Your task to perform on an android device: Clear all items from cart on costco.com. Image 0: 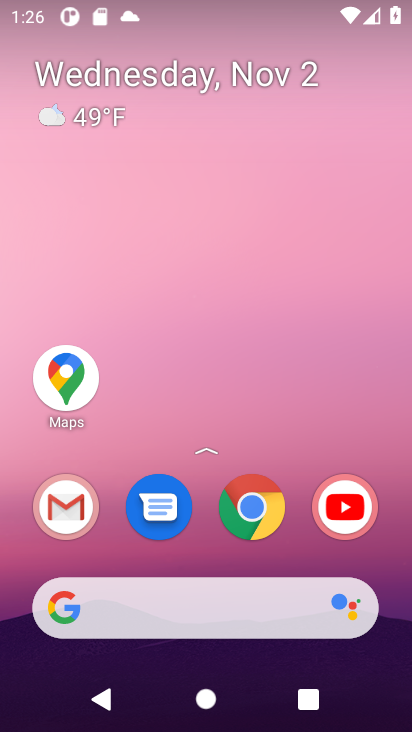
Step 0: click (176, 598)
Your task to perform on an android device: Clear all items from cart on costco.com. Image 1: 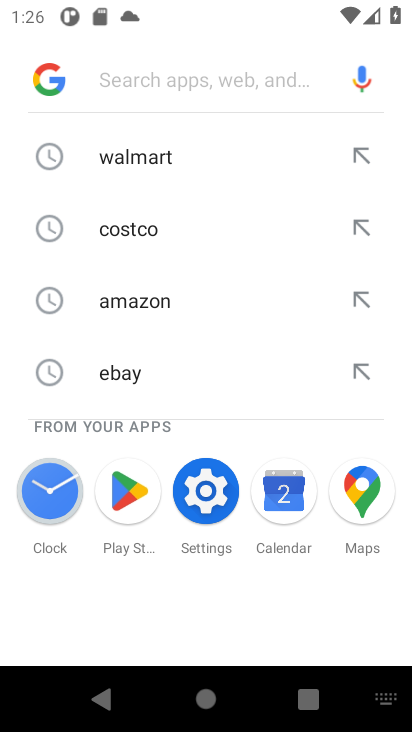
Step 1: click (126, 232)
Your task to perform on an android device: Clear all items from cart on costco.com. Image 2: 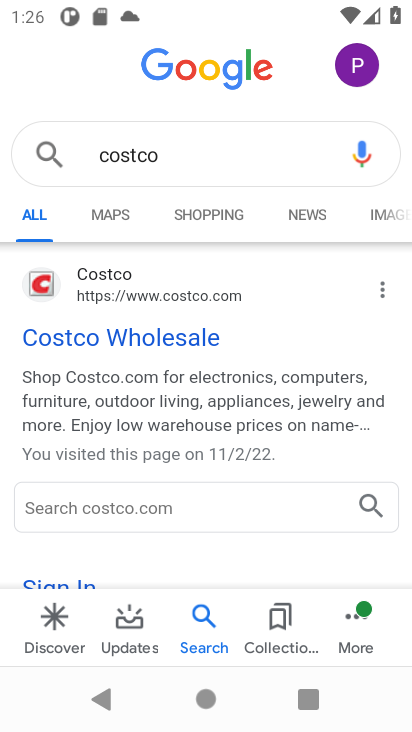
Step 2: click (156, 329)
Your task to perform on an android device: Clear all items from cart on costco.com. Image 3: 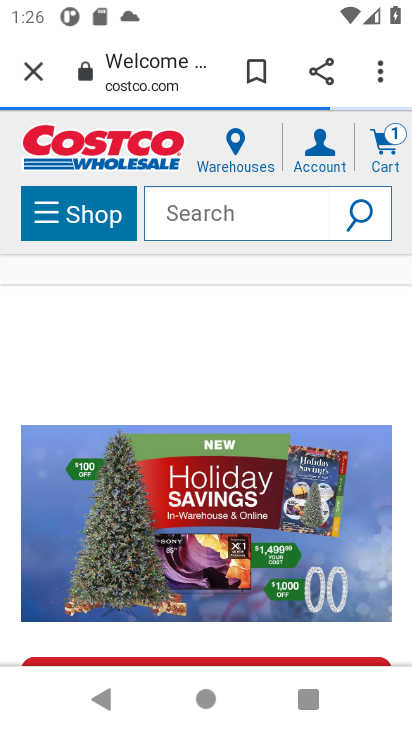
Step 3: click (222, 225)
Your task to perform on an android device: Clear all items from cart on costco.com. Image 4: 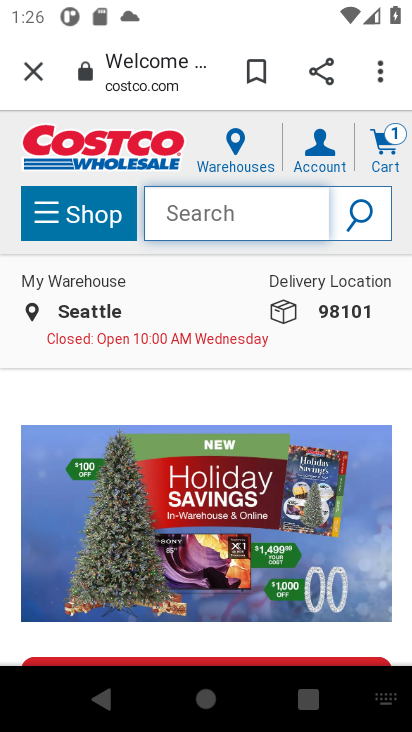
Step 4: click (365, 141)
Your task to perform on an android device: Clear all items from cart on costco.com. Image 5: 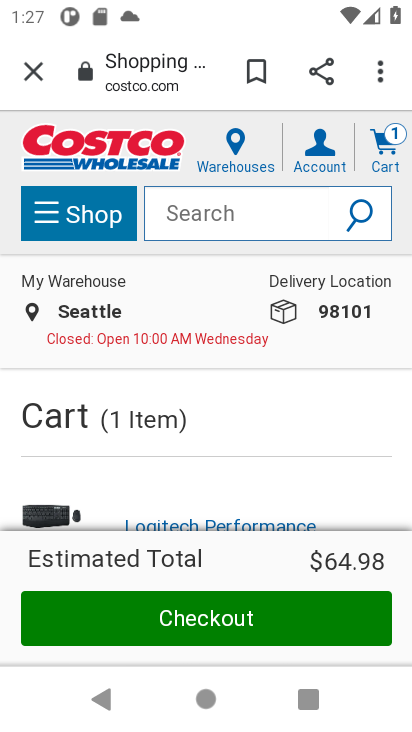
Step 5: drag from (264, 482) to (250, 244)
Your task to perform on an android device: Clear all items from cart on costco.com. Image 6: 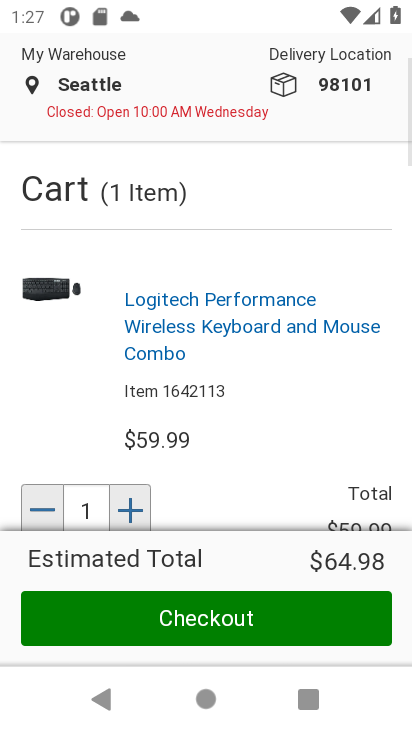
Step 6: drag from (222, 418) to (217, 281)
Your task to perform on an android device: Clear all items from cart on costco.com. Image 7: 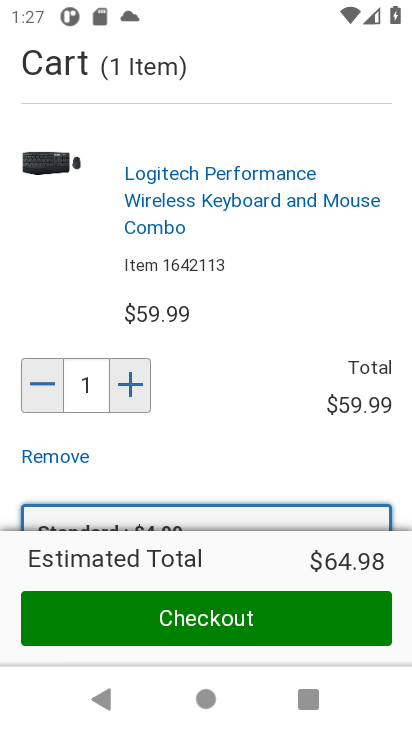
Step 7: drag from (196, 440) to (210, 349)
Your task to perform on an android device: Clear all items from cart on costco.com. Image 8: 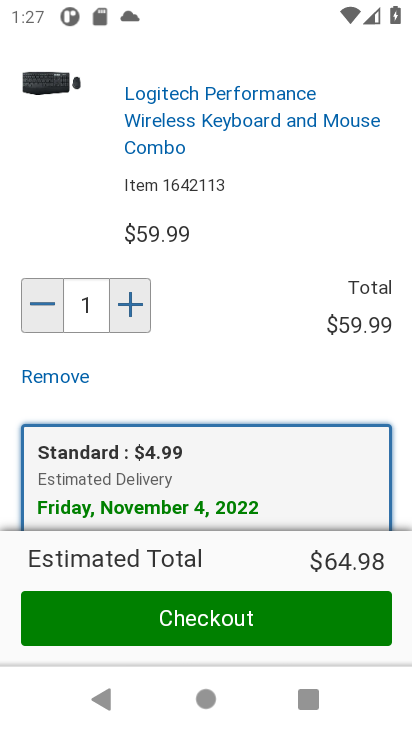
Step 8: click (35, 370)
Your task to perform on an android device: Clear all items from cart on costco.com. Image 9: 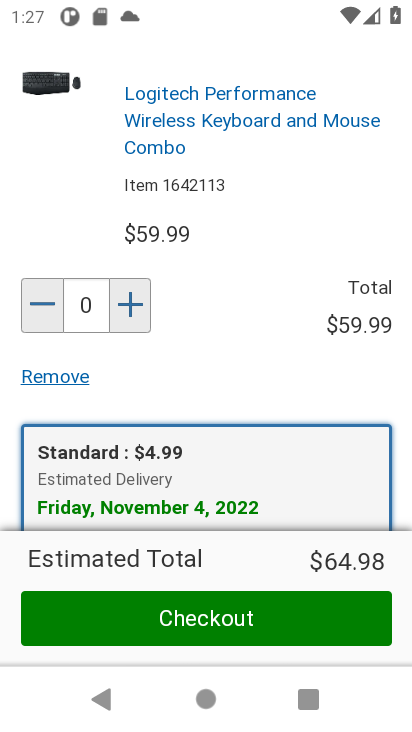
Step 9: click (59, 385)
Your task to perform on an android device: Clear all items from cart on costco.com. Image 10: 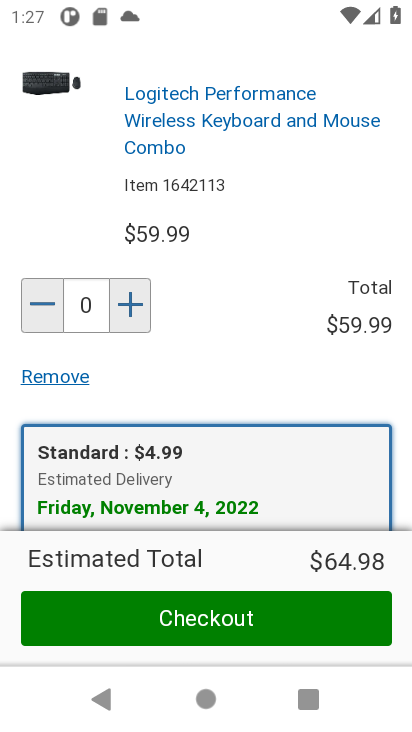
Step 10: click (58, 383)
Your task to perform on an android device: Clear all items from cart on costco.com. Image 11: 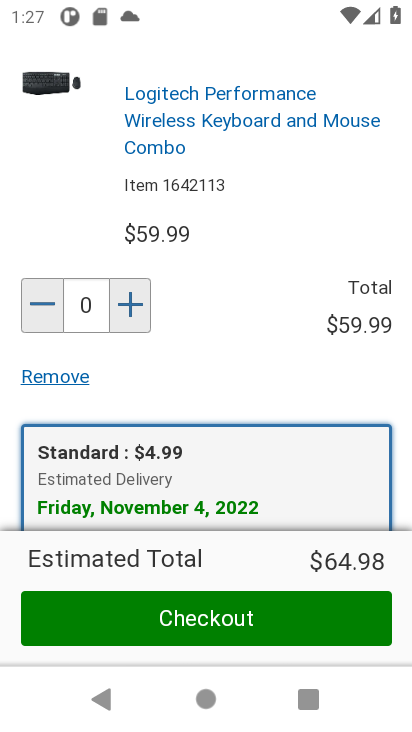
Step 11: click (63, 373)
Your task to perform on an android device: Clear all items from cart on costco.com. Image 12: 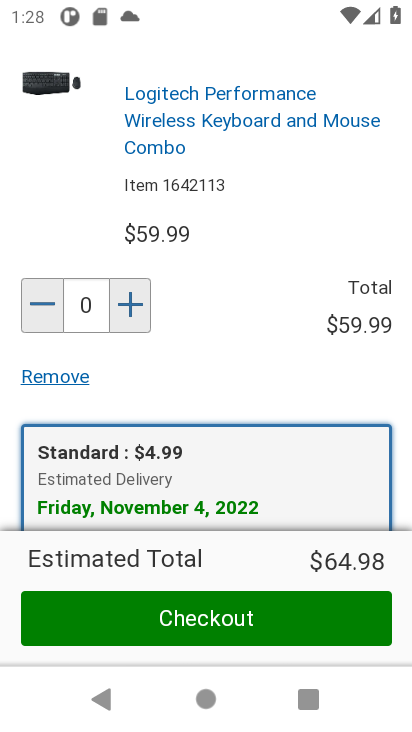
Step 12: click (89, 383)
Your task to perform on an android device: Clear all items from cart on costco.com. Image 13: 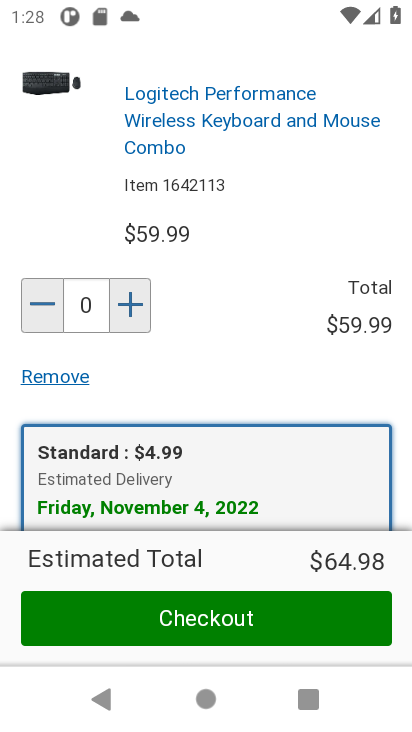
Step 13: click (47, 381)
Your task to perform on an android device: Clear all items from cart on costco.com. Image 14: 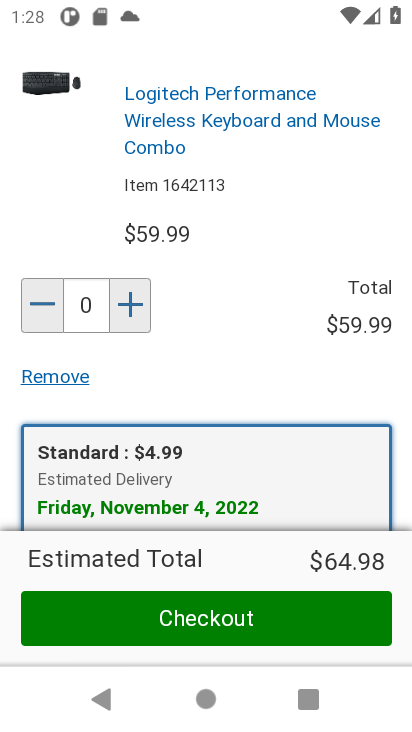
Step 14: click (46, 377)
Your task to perform on an android device: Clear all items from cart on costco.com. Image 15: 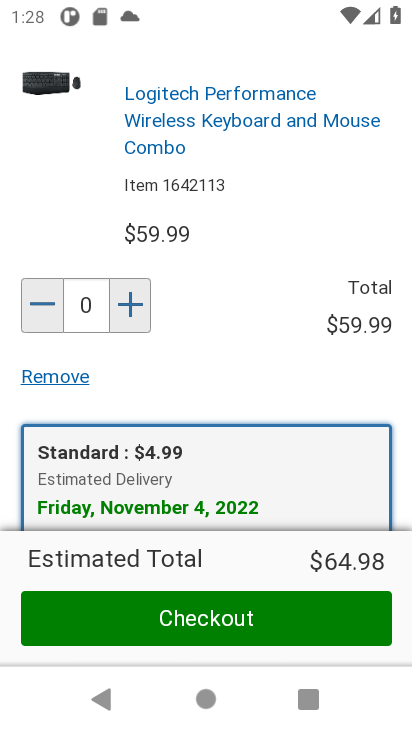
Step 15: click (72, 381)
Your task to perform on an android device: Clear all items from cart on costco.com. Image 16: 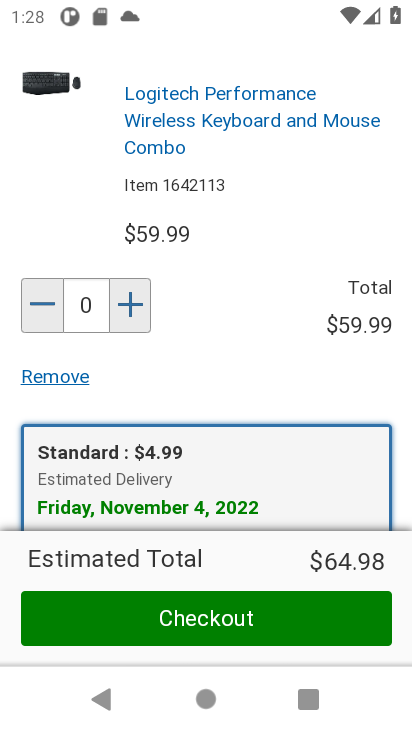
Step 16: click (70, 379)
Your task to perform on an android device: Clear all items from cart on costco.com. Image 17: 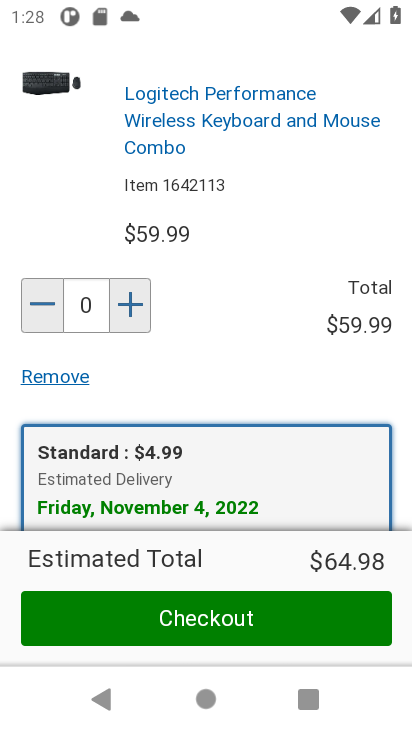
Step 17: click (52, 380)
Your task to perform on an android device: Clear all items from cart on costco.com. Image 18: 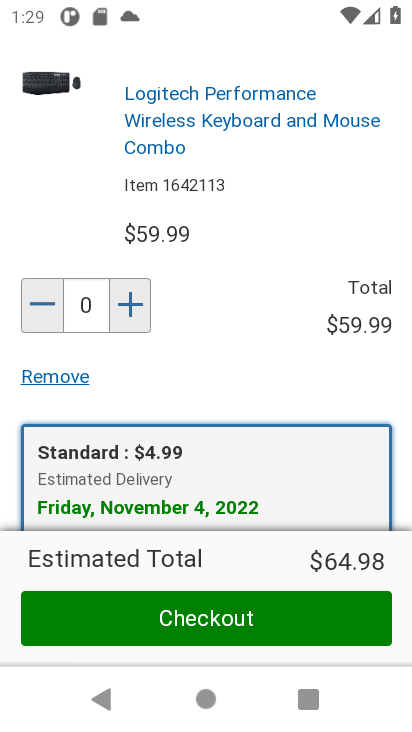
Step 18: task complete